Your task to perform on an android device: Set the phone to "Do not disturb". Image 0: 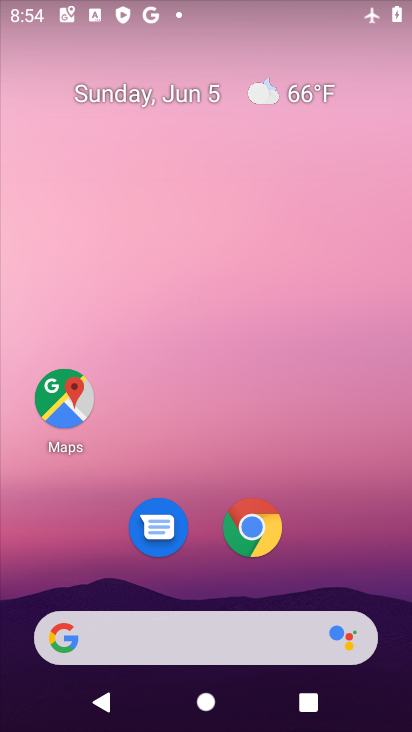
Step 0: drag from (242, 12) to (174, 631)
Your task to perform on an android device: Set the phone to "Do not disturb". Image 1: 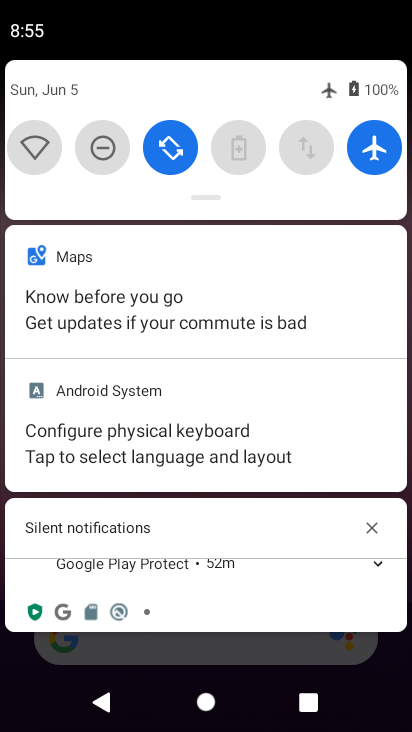
Step 1: click (103, 168)
Your task to perform on an android device: Set the phone to "Do not disturb". Image 2: 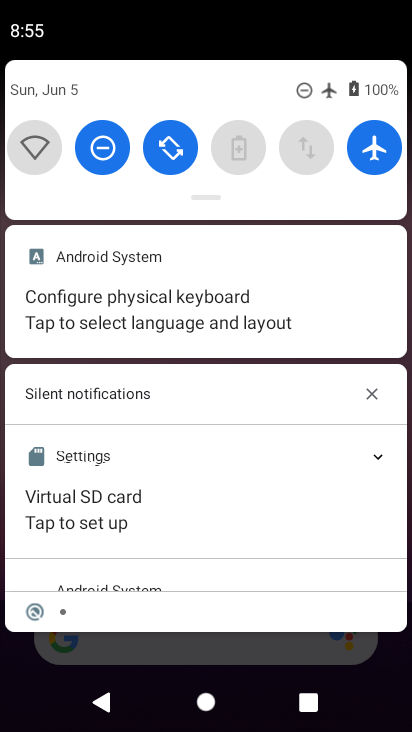
Step 2: task complete